Your task to perform on an android device: turn off wifi Image 0: 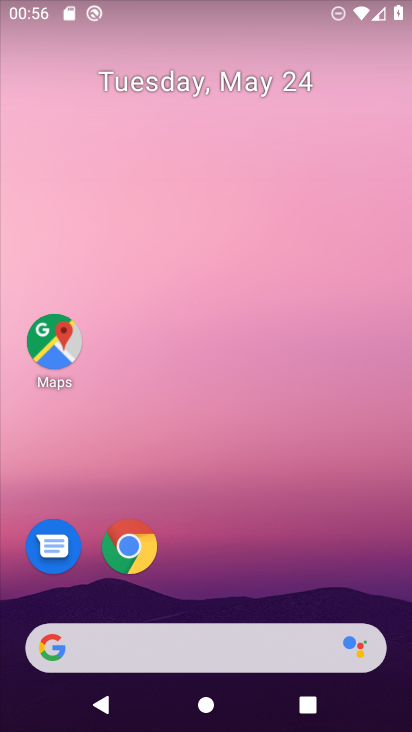
Step 0: drag from (140, 638) to (225, 31)
Your task to perform on an android device: turn off wifi Image 1: 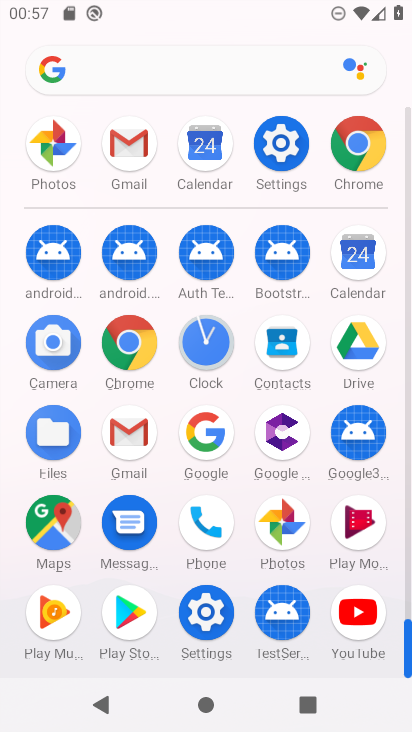
Step 1: click (284, 142)
Your task to perform on an android device: turn off wifi Image 2: 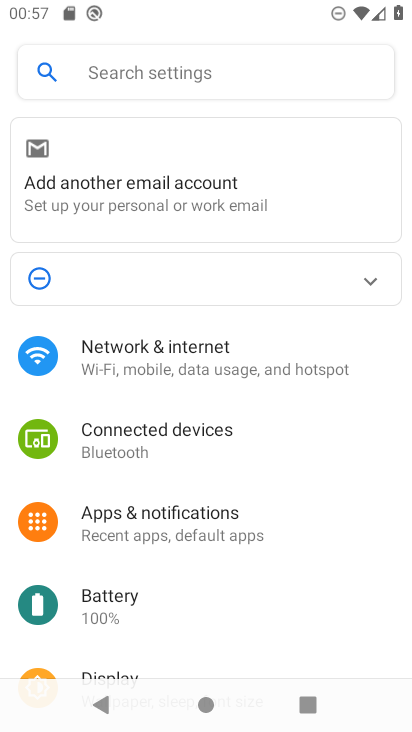
Step 2: click (147, 362)
Your task to perform on an android device: turn off wifi Image 3: 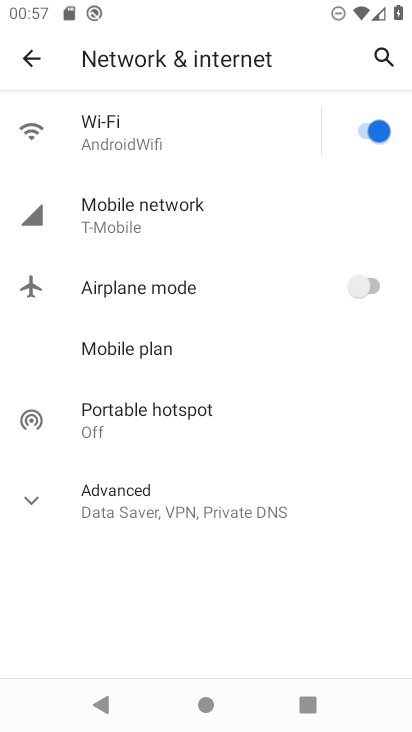
Step 3: click (369, 131)
Your task to perform on an android device: turn off wifi Image 4: 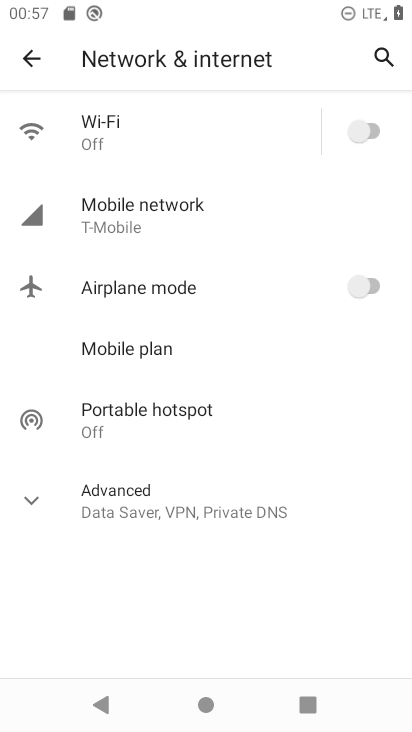
Step 4: task complete